Your task to perform on an android device: What's the weather today? Image 0: 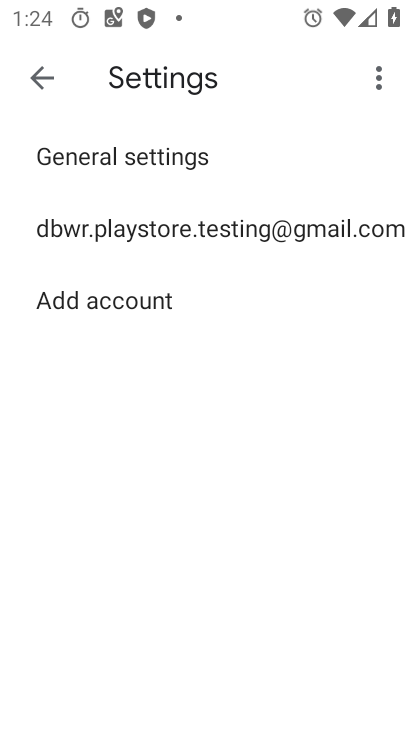
Step 0: press back button
Your task to perform on an android device: What's the weather today? Image 1: 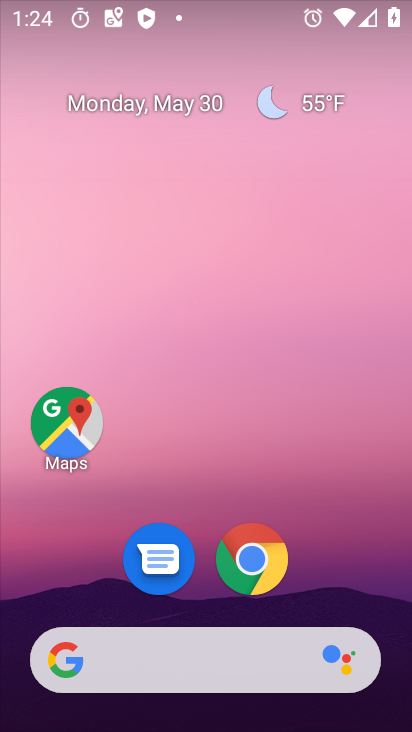
Step 1: click (303, 94)
Your task to perform on an android device: What's the weather today? Image 2: 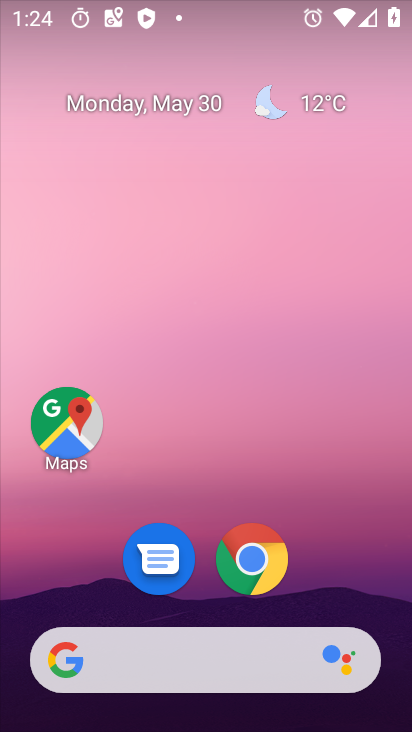
Step 2: click (268, 100)
Your task to perform on an android device: What's the weather today? Image 3: 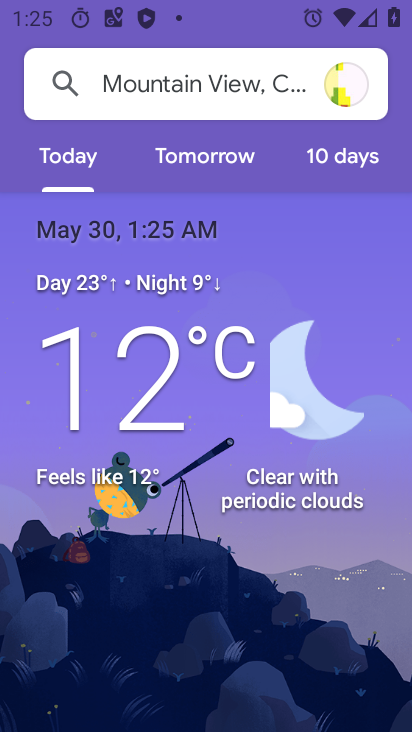
Step 3: task complete